Your task to perform on an android device: open sync settings in chrome Image 0: 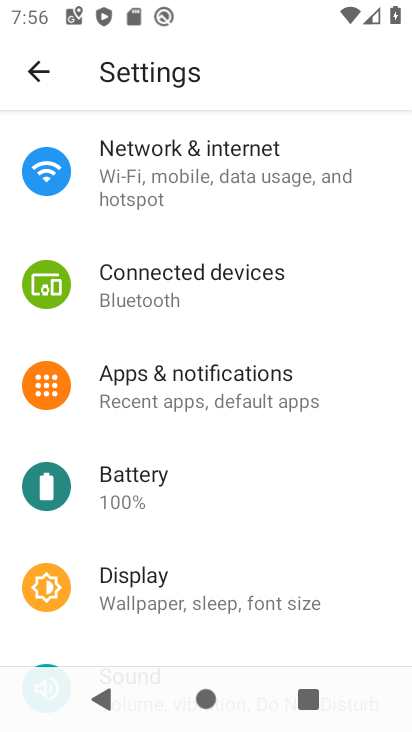
Step 0: press home button
Your task to perform on an android device: open sync settings in chrome Image 1: 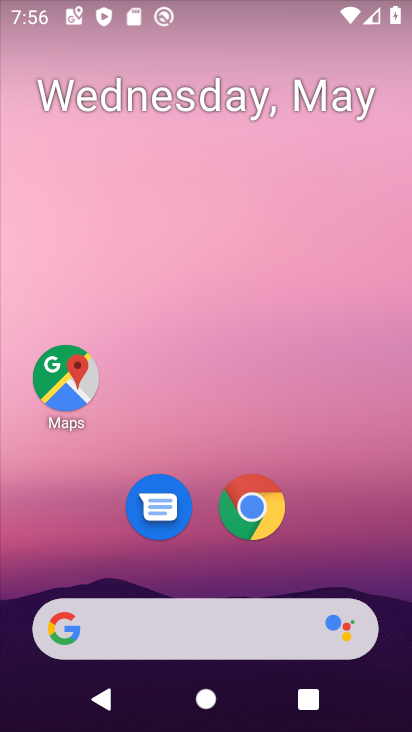
Step 1: click (244, 493)
Your task to perform on an android device: open sync settings in chrome Image 2: 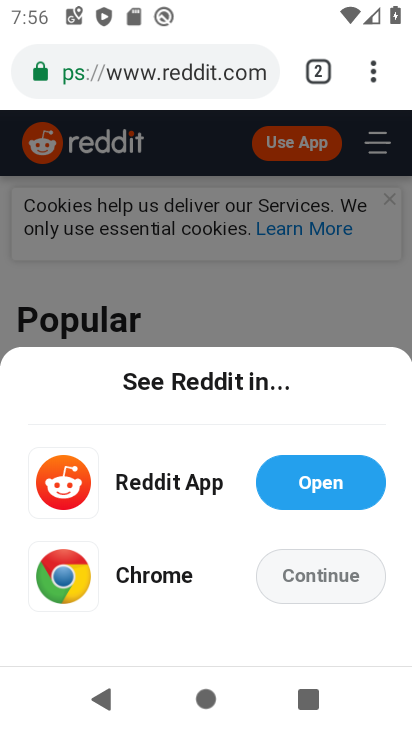
Step 2: click (376, 78)
Your task to perform on an android device: open sync settings in chrome Image 3: 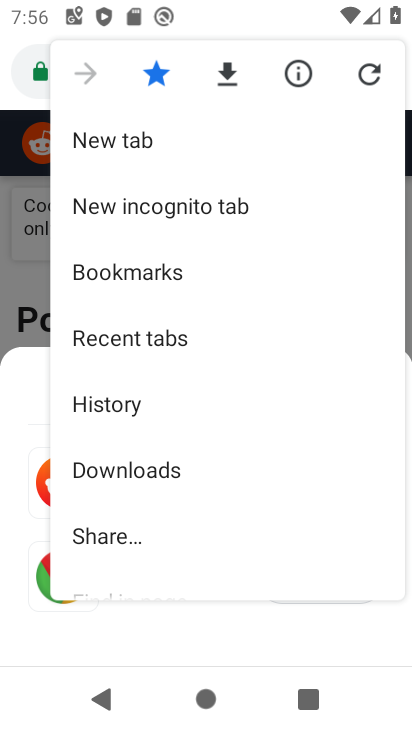
Step 3: drag from (196, 530) to (199, 216)
Your task to perform on an android device: open sync settings in chrome Image 4: 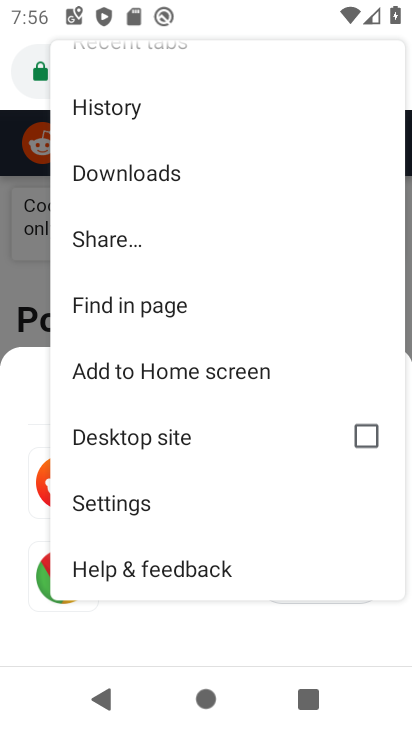
Step 4: click (148, 509)
Your task to perform on an android device: open sync settings in chrome Image 5: 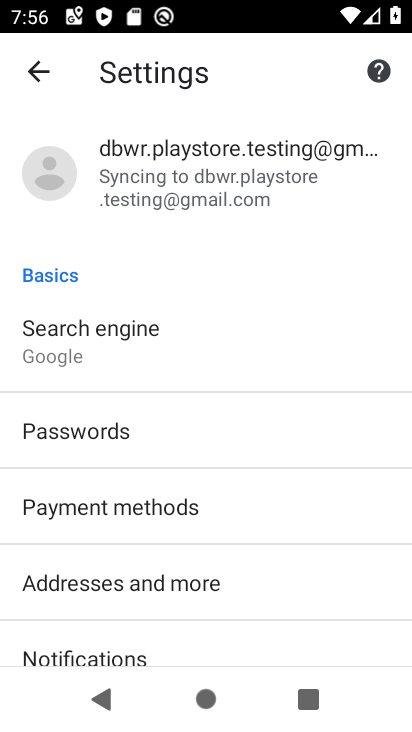
Step 5: click (177, 154)
Your task to perform on an android device: open sync settings in chrome Image 6: 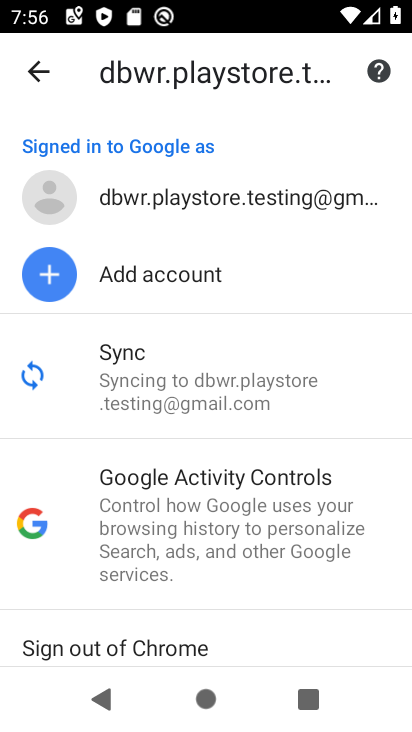
Step 6: click (220, 382)
Your task to perform on an android device: open sync settings in chrome Image 7: 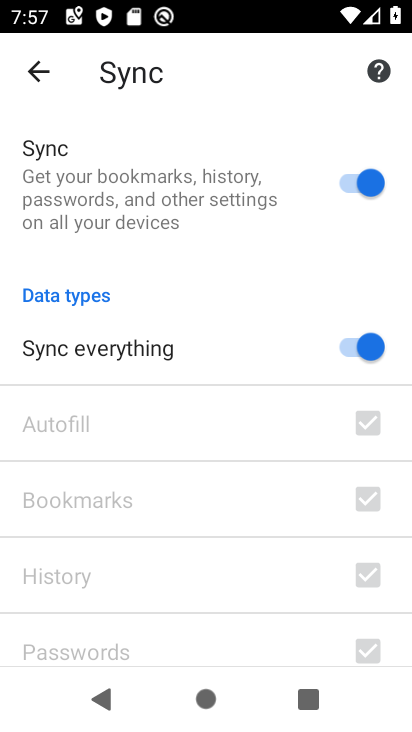
Step 7: task complete